Your task to perform on an android device: Go to network settings Image 0: 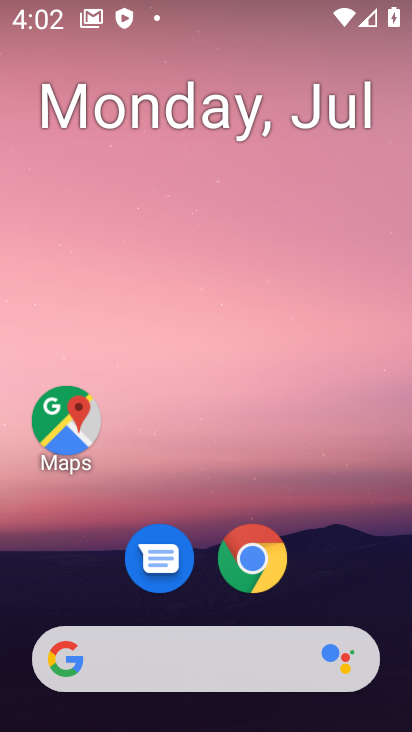
Step 0: drag from (94, 577) to (166, 86)
Your task to perform on an android device: Go to network settings Image 1: 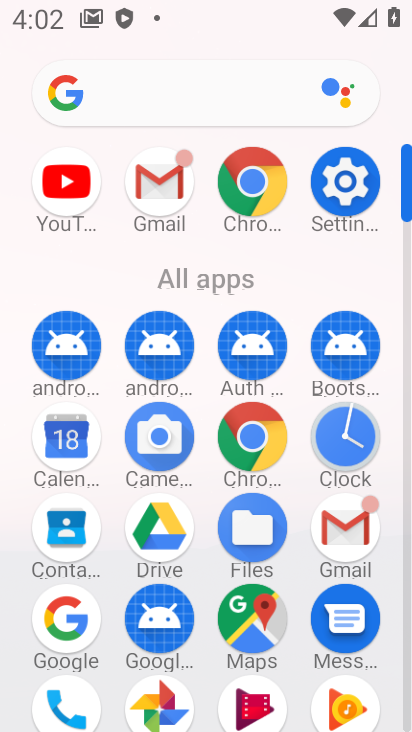
Step 1: click (336, 182)
Your task to perform on an android device: Go to network settings Image 2: 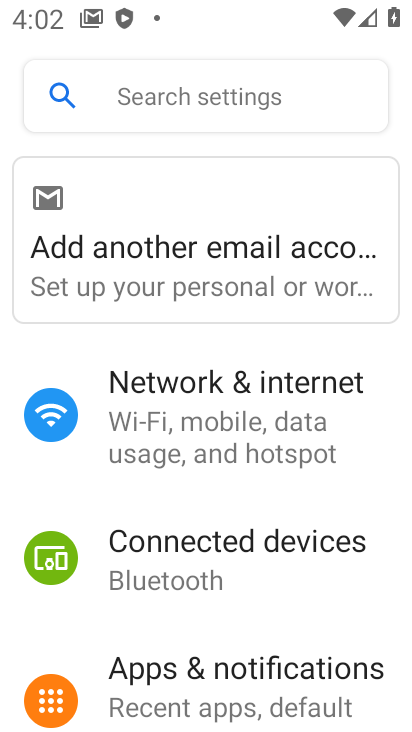
Step 2: click (214, 404)
Your task to perform on an android device: Go to network settings Image 3: 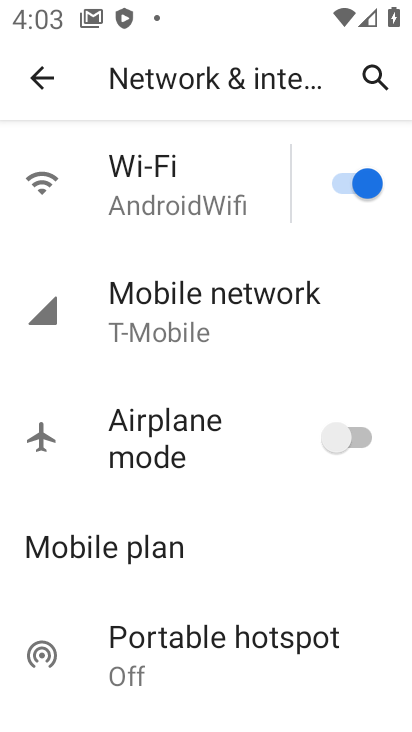
Step 3: task complete